Your task to perform on an android device: Open Google Chrome and click the shortcut for Amazon.com Image 0: 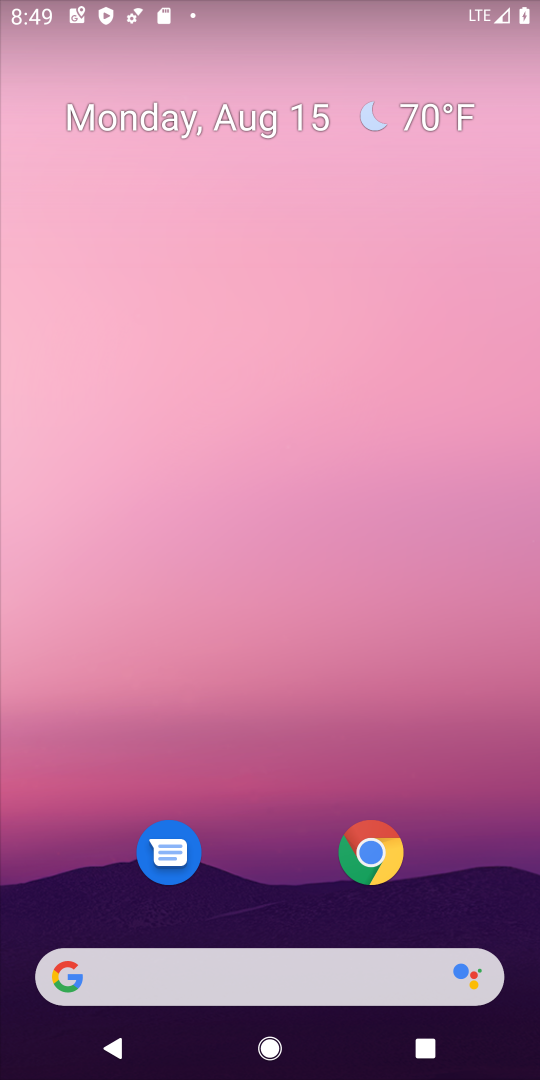
Step 0: drag from (195, 974) to (130, 197)
Your task to perform on an android device: Open Google Chrome and click the shortcut for Amazon.com Image 1: 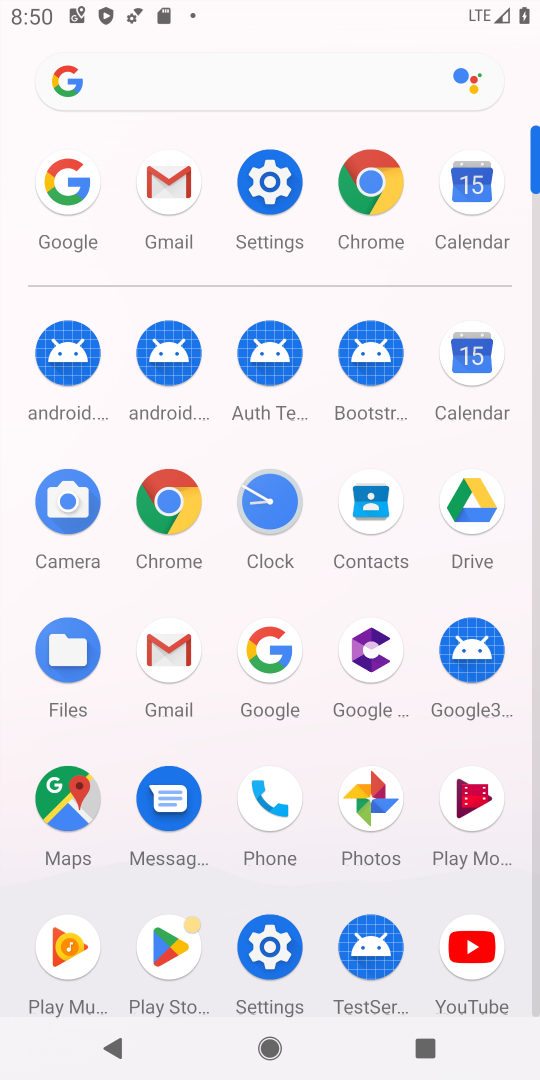
Step 1: click (367, 186)
Your task to perform on an android device: Open Google Chrome and click the shortcut for Amazon.com Image 2: 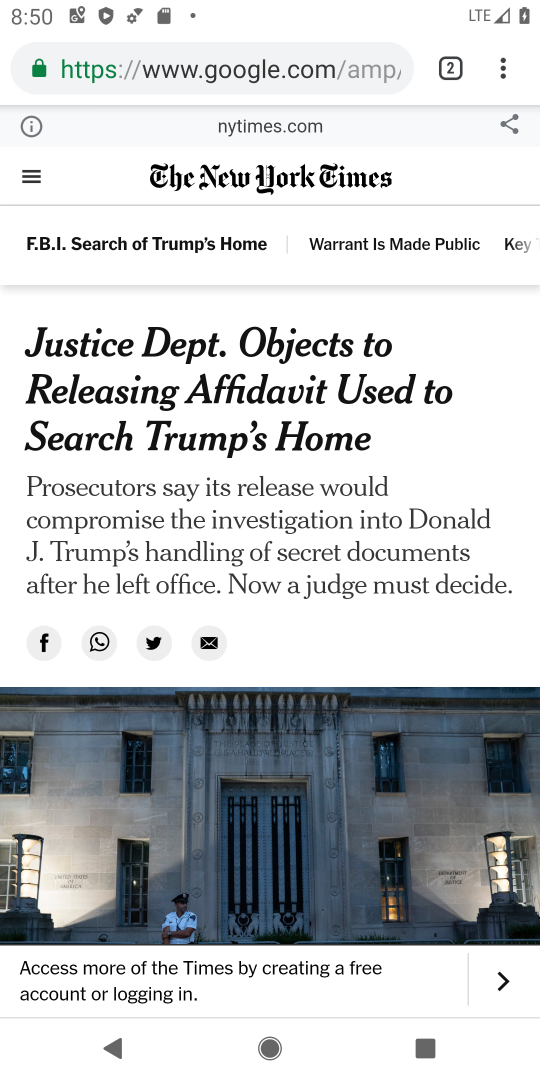
Step 2: click (401, 76)
Your task to perform on an android device: Open Google Chrome and click the shortcut for Amazon.com Image 3: 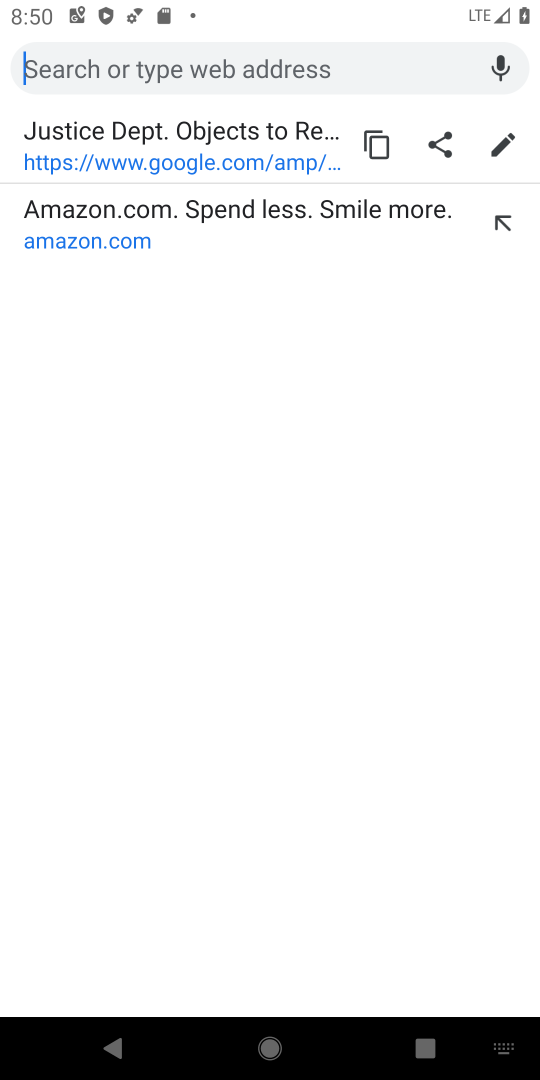
Step 3: click (407, 215)
Your task to perform on an android device: Open Google Chrome and click the shortcut for Amazon.com Image 4: 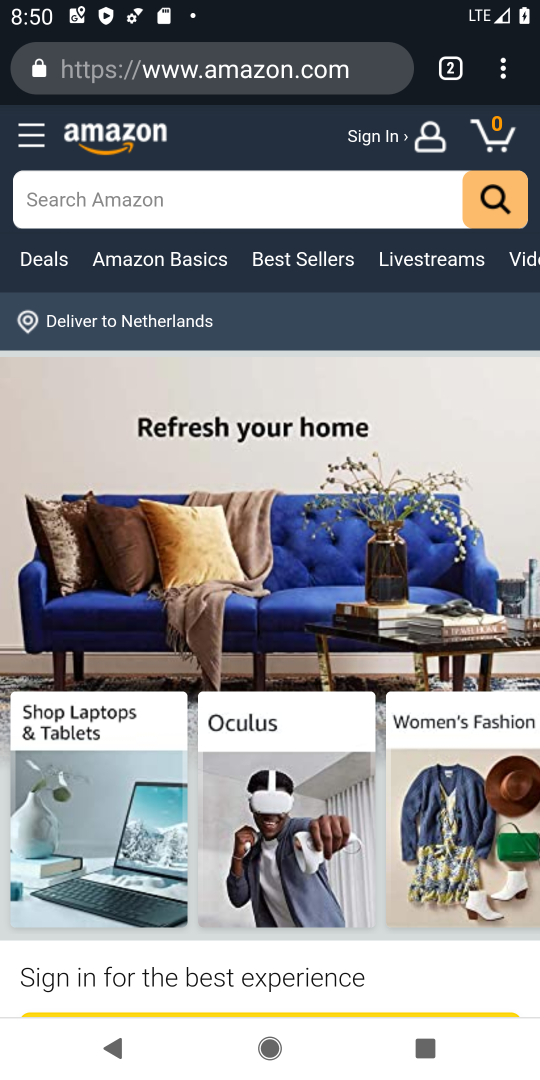
Step 4: drag from (510, 71) to (350, 789)
Your task to perform on an android device: Open Google Chrome and click the shortcut for Amazon.com Image 5: 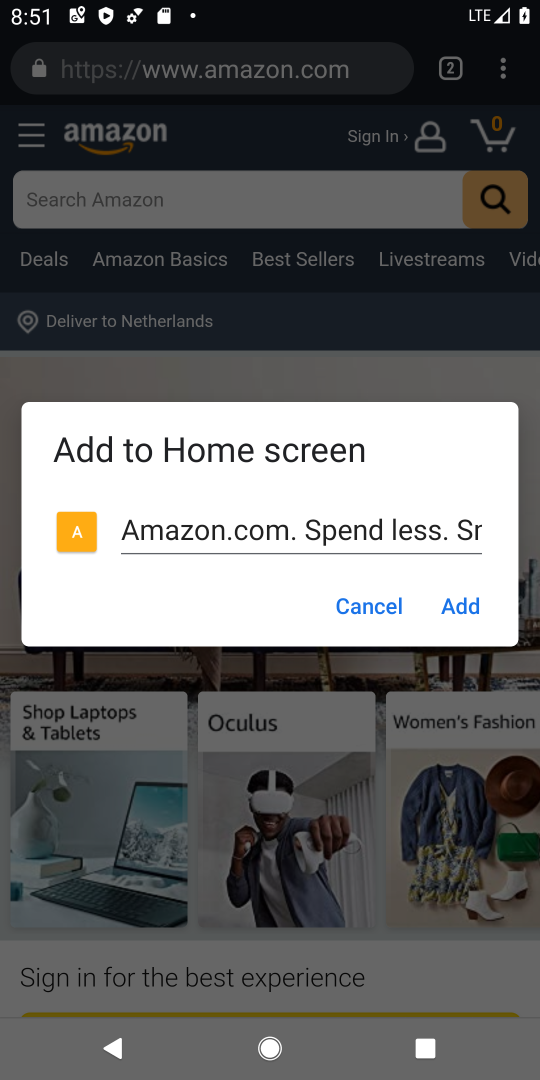
Step 5: click (464, 606)
Your task to perform on an android device: Open Google Chrome and click the shortcut for Amazon.com Image 6: 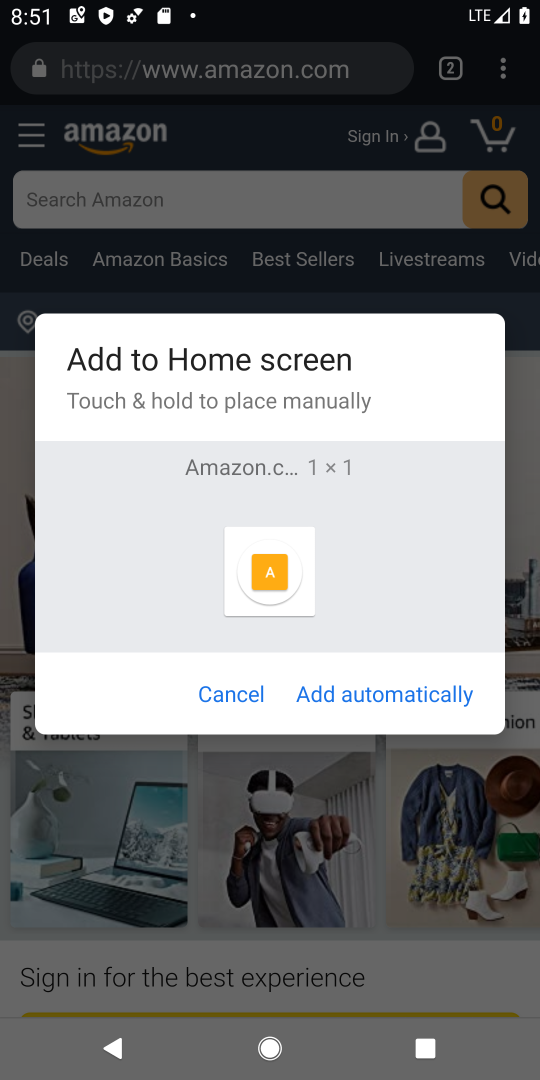
Step 6: click (426, 694)
Your task to perform on an android device: Open Google Chrome and click the shortcut for Amazon.com Image 7: 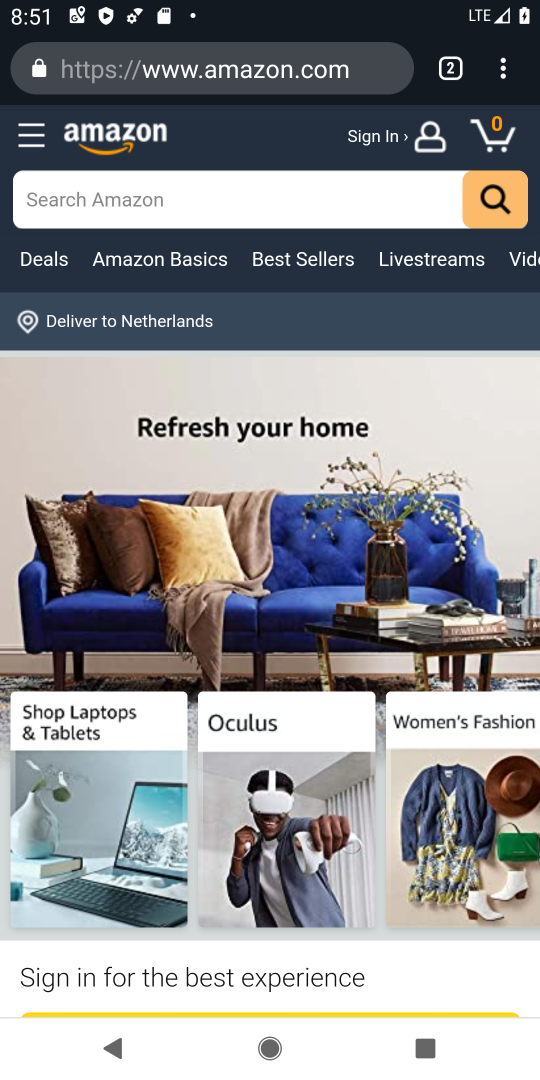
Step 7: task complete